Your task to perform on an android device: star an email in the gmail app Image 0: 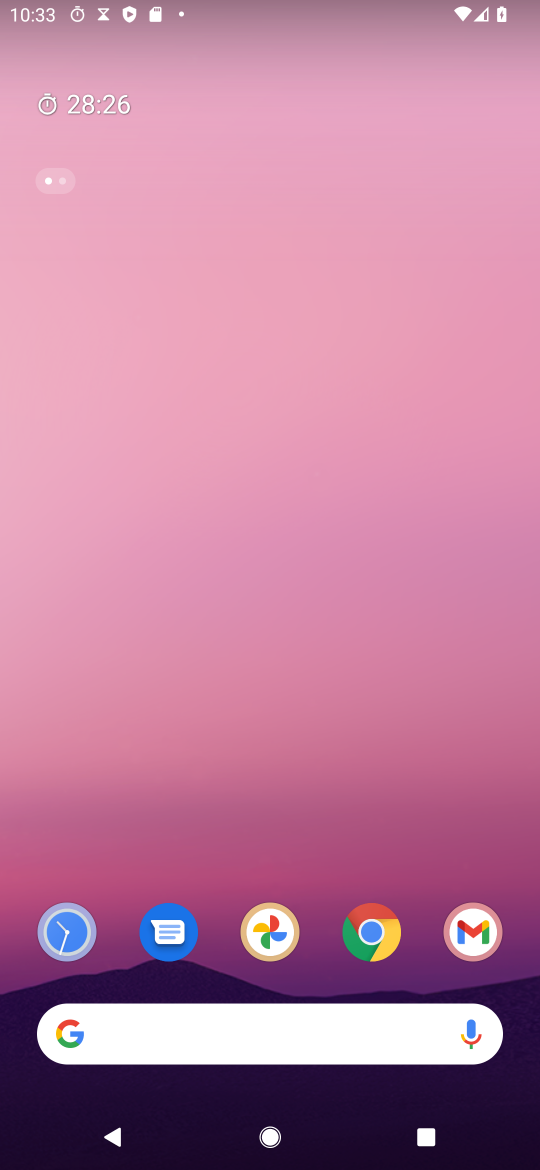
Step 0: drag from (351, 830) to (278, 9)
Your task to perform on an android device: star an email in the gmail app Image 1: 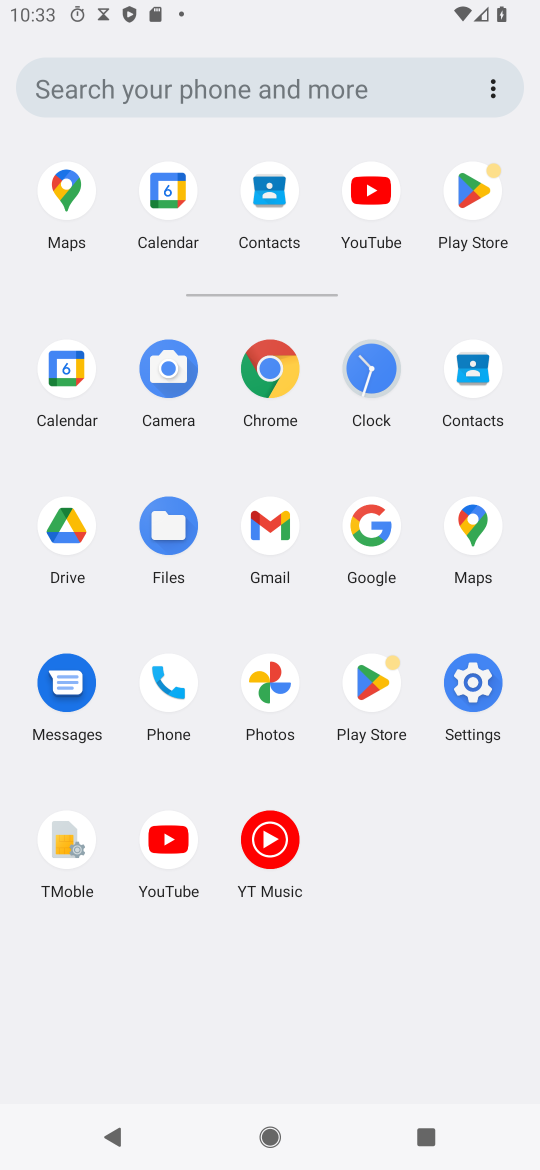
Step 1: click (266, 515)
Your task to perform on an android device: star an email in the gmail app Image 2: 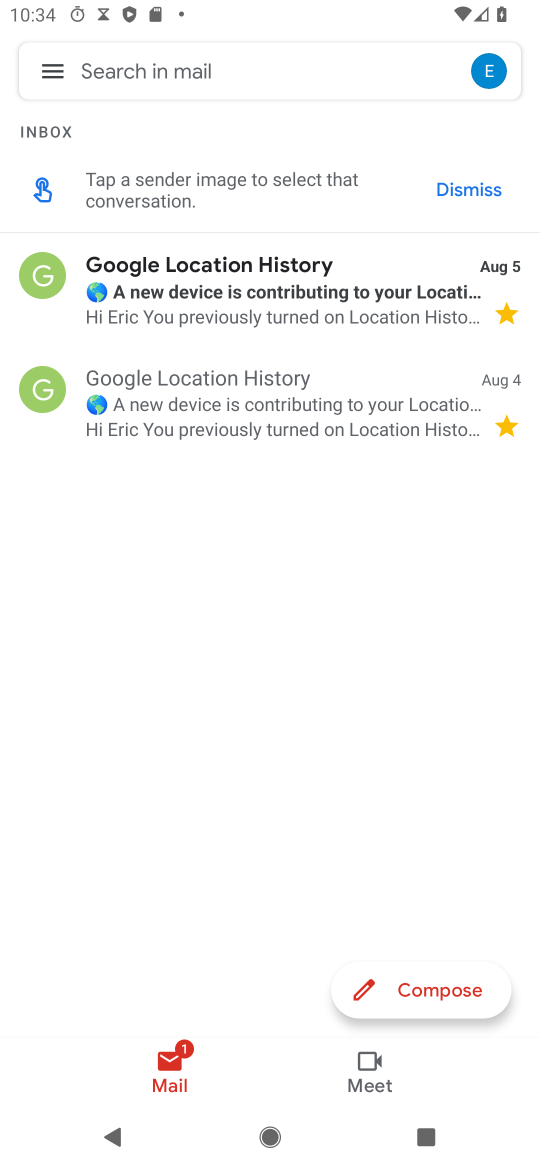
Step 2: click (53, 64)
Your task to perform on an android device: star an email in the gmail app Image 3: 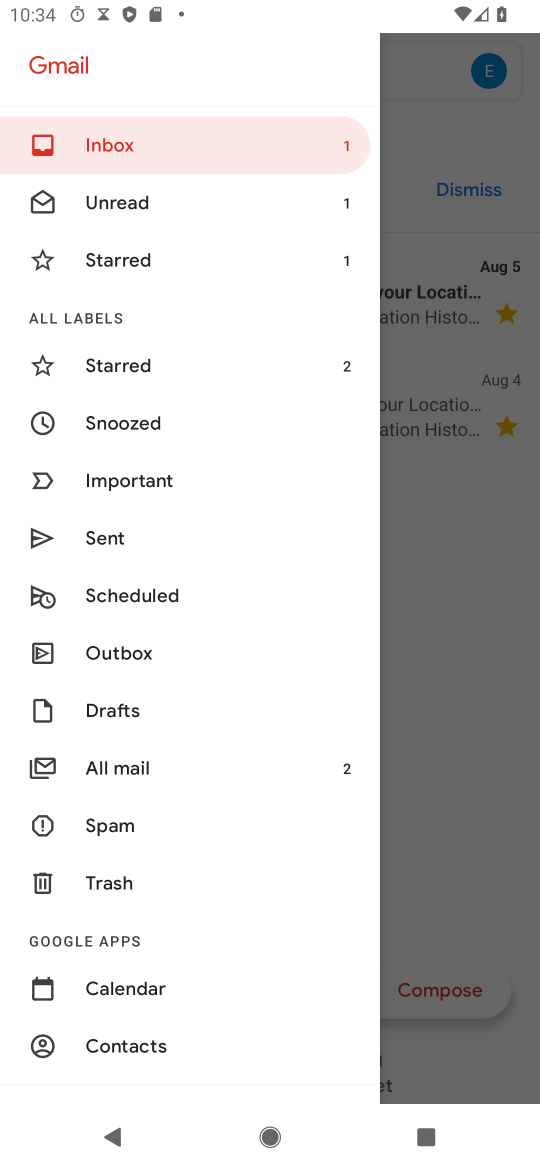
Step 3: click (162, 752)
Your task to perform on an android device: star an email in the gmail app Image 4: 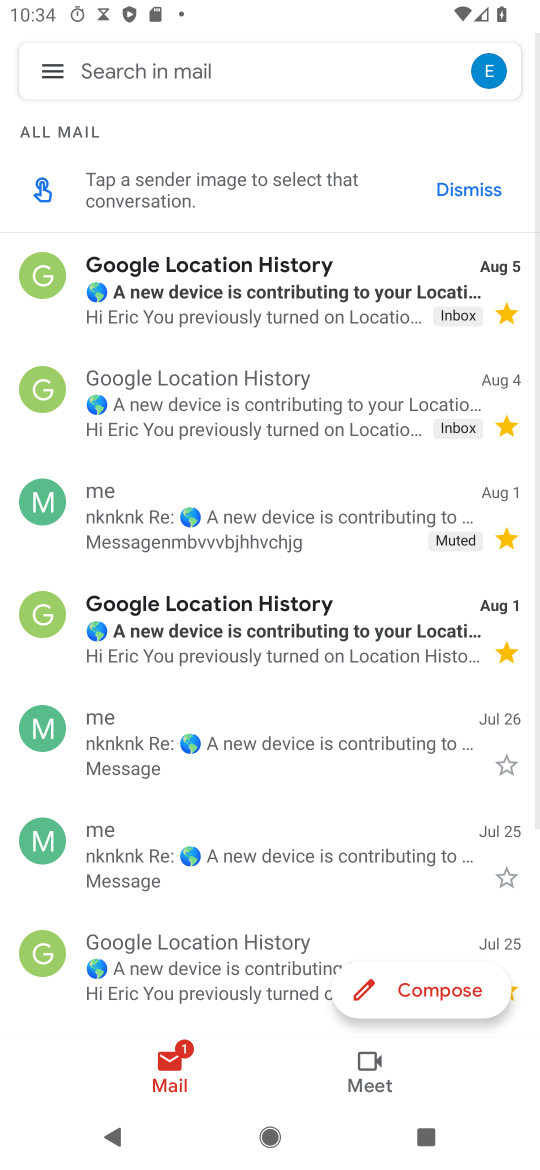
Step 4: click (500, 769)
Your task to perform on an android device: star an email in the gmail app Image 5: 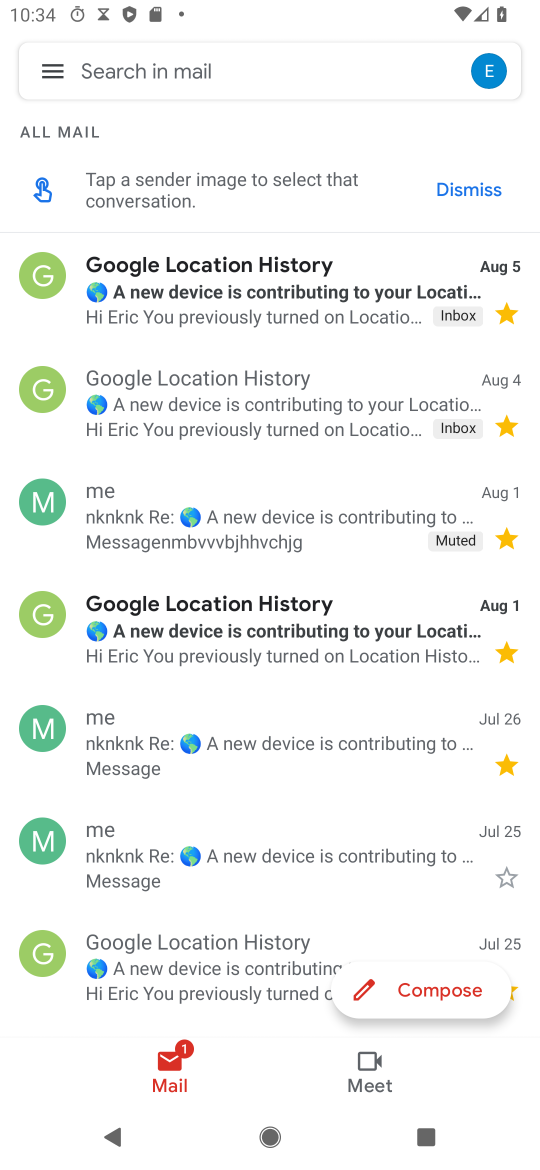
Step 5: task complete